Your task to perform on an android device: check android version Image 0: 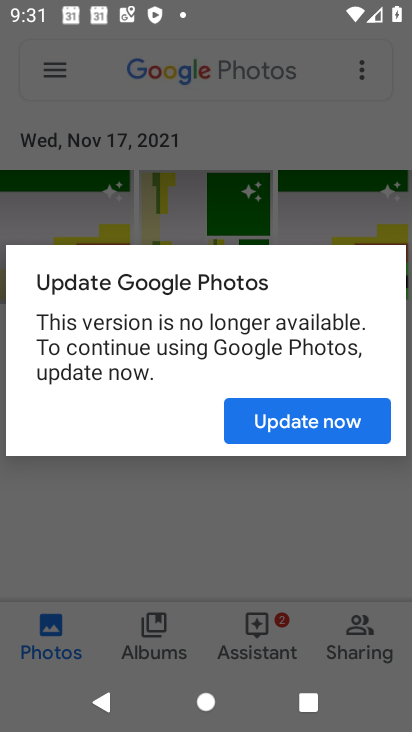
Step 0: press home button
Your task to perform on an android device: check android version Image 1: 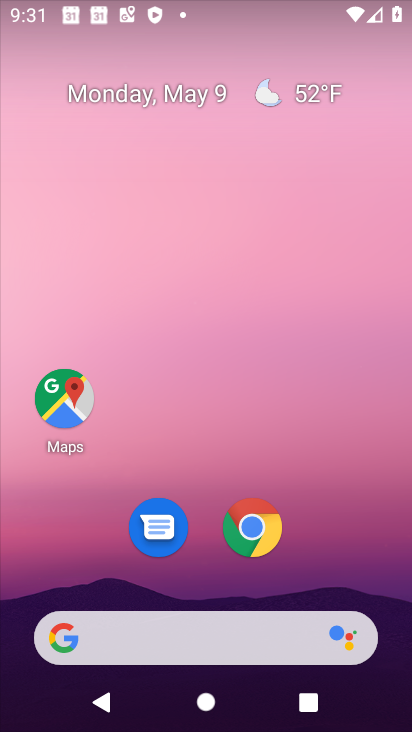
Step 1: drag from (219, 551) to (212, 39)
Your task to perform on an android device: check android version Image 2: 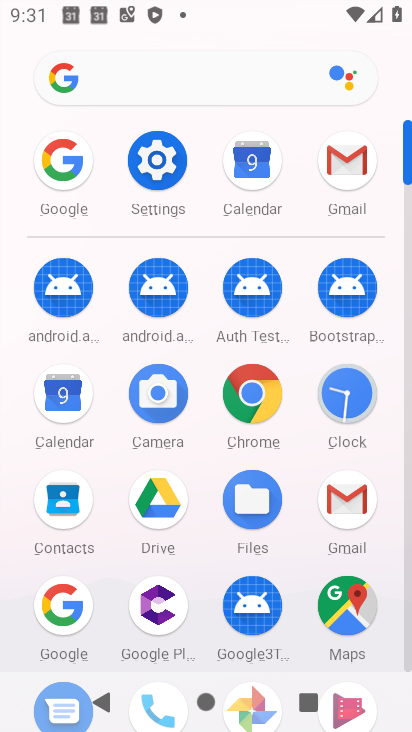
Step 2: click (157, 158)
Your task to perform on an android device: check android version Image 3: 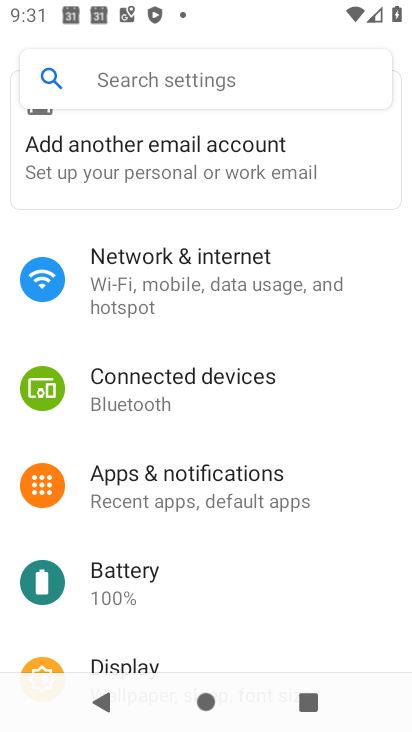
Step 3: drag from (201, 548) to (208, 14)
Your task to perform on an android device: check android version Image 4: 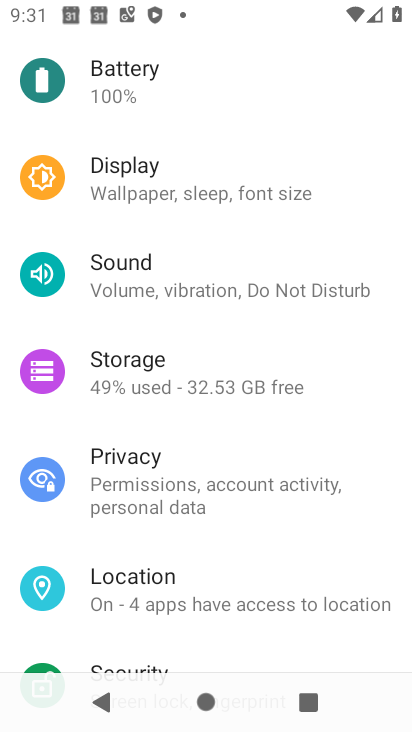
Step 4: drag from (204, 488) to (216, 125)
Your task to perform on an android device: check android version Image 5: 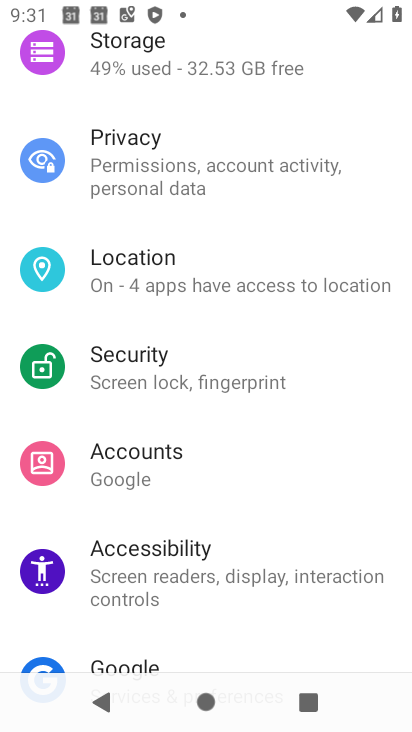
Step 5: drag from (252, 263) to (279, 13)
Your task to perform on an android device: check android version Image 6: 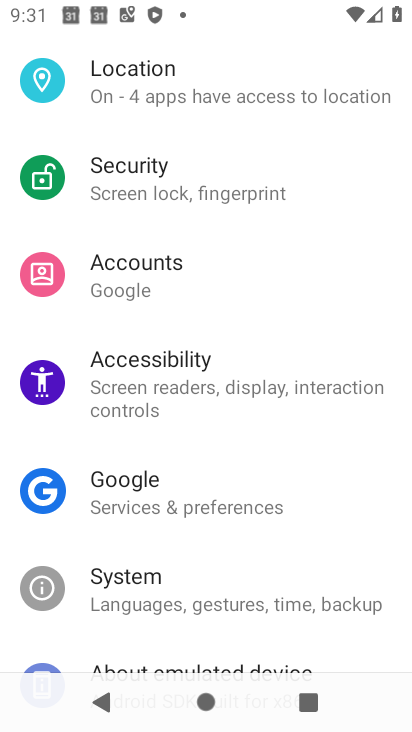
Step 6: drag from (197, 549) to (185, 74)
Your task to perform on an android device: check android version Image 7: 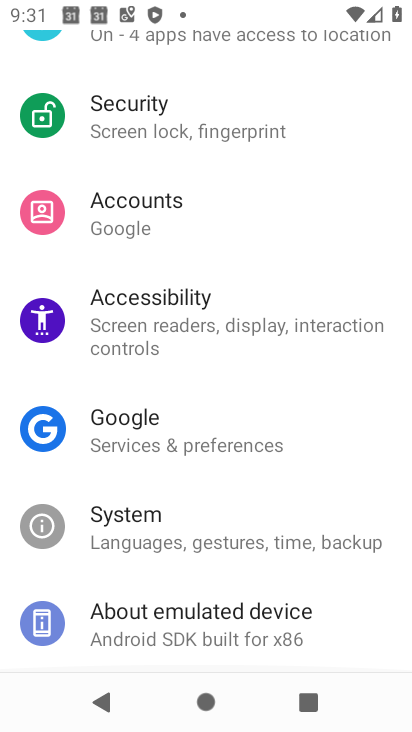
Step 7: click (159, 644)
Your task to perform on an android device: check android version Image 8: 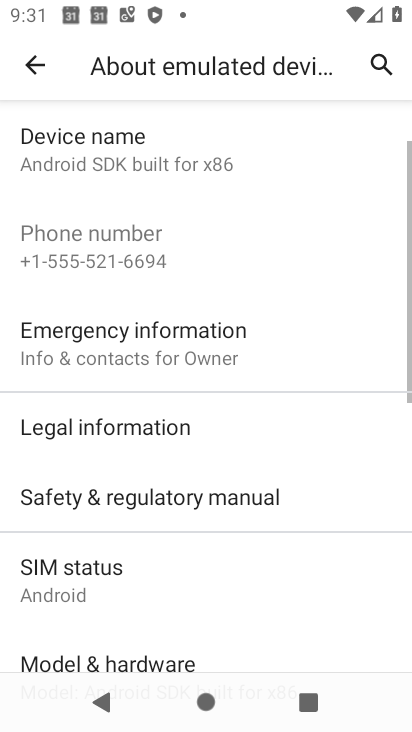
Step 8: drag from (180, 520) to (168, 107)
Your task to perform on an android device: check android version Image 9: 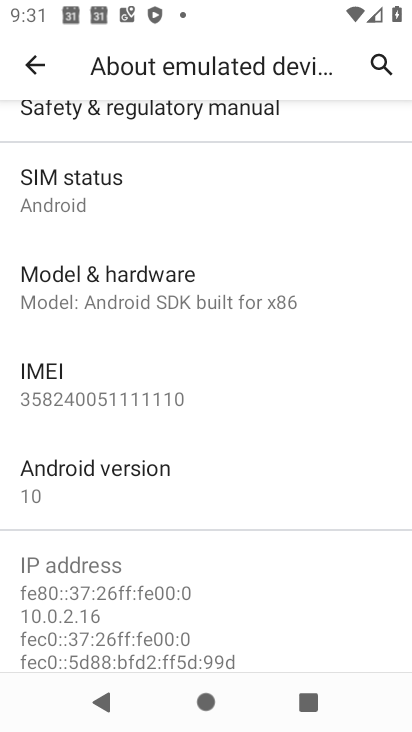
Step 9: click (143, 475)
Your task to perform on an android device: check android version Image 10: 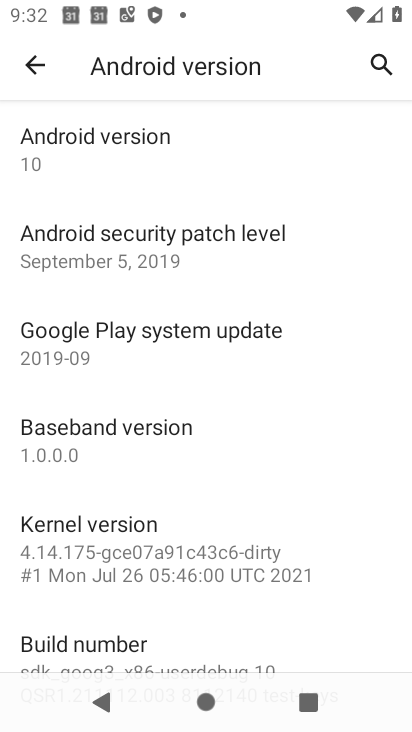
Step 10: task complete